Your task to perform on an android device: toggle pop-ups in chrome Image 0: 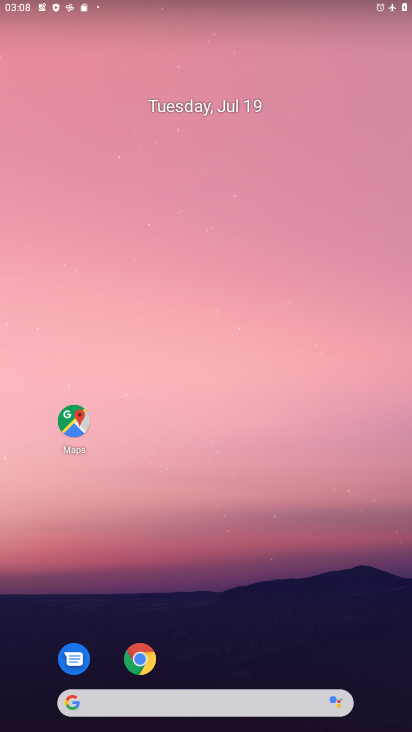
Step 0: press home button
Your task to perform on an android device: toggle pop-ups in chrome Image 1: 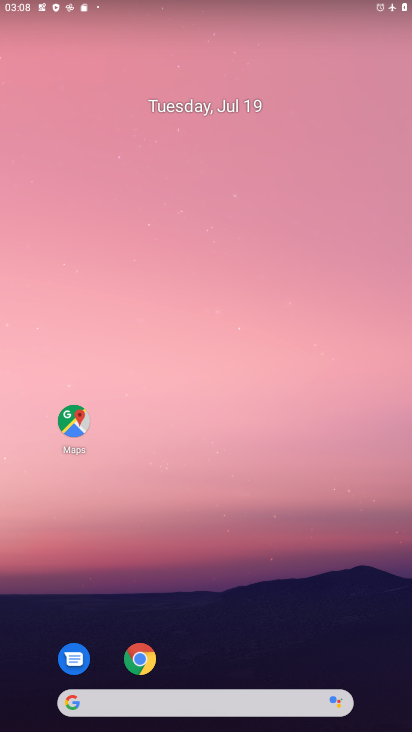
Step 1: drag from (304, 667) to (240, 7)
Your task to perform on an android device: toggle pop-ups in chrome Image 2: 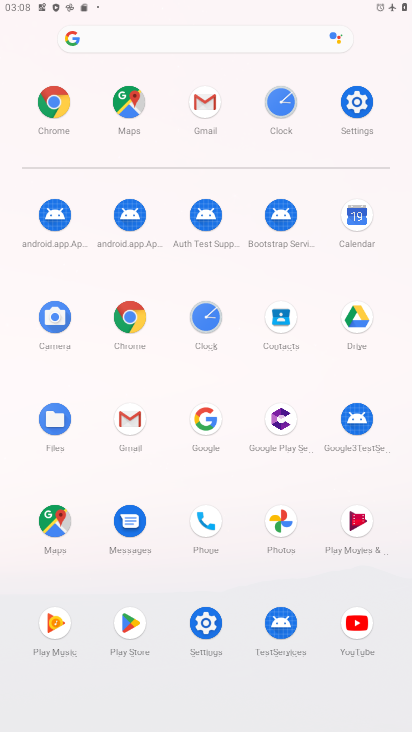
Step 2: click (138, 351)
Your task to perform on an android device: toggle pop-ups in chrome Image 3: 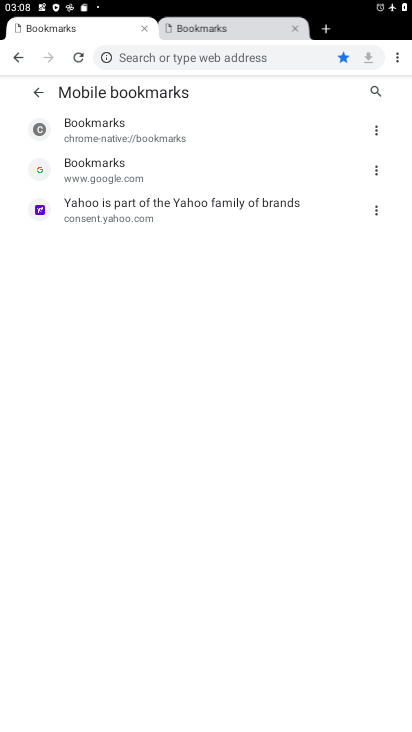
Step 3: drag from (397, 54) to (276, 287)
Your task to perform on an android device: toggle pop-ups in chrome Image 4: 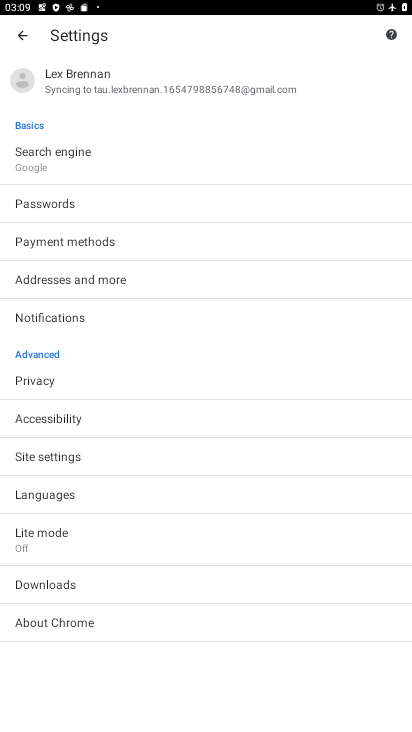
Step 4: click (26, 446)
Your task to perform on an android device: toggle pop-ups in chrome Image 5: 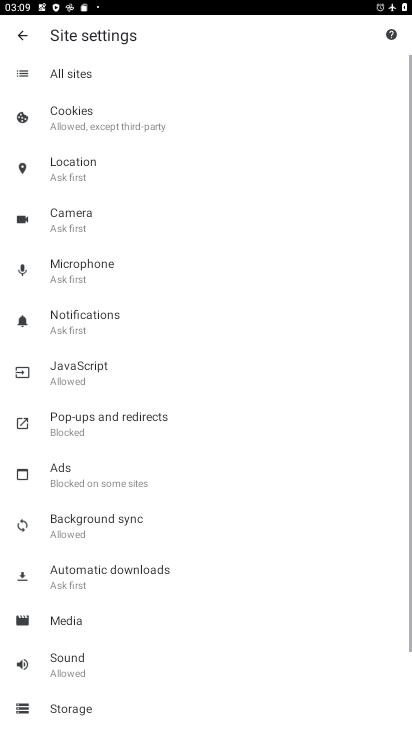
Step 5: click (29, 433)
Your task to perform on an android device: toggle pop-ups in chrome Image 6: 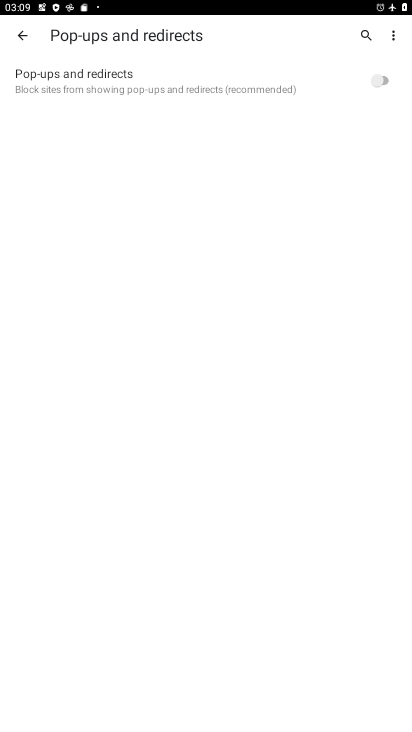
Step 6: click (346, 91)
Your task to perform on an android device: toggle pop-ups in chrome Image 7: 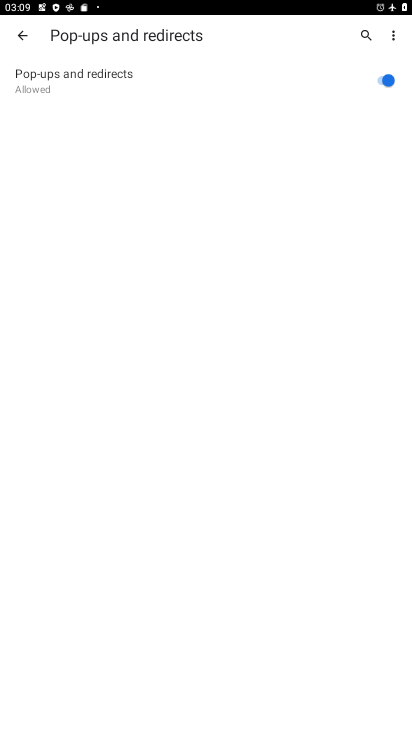
Step 7: click (328, 71)
Your task to perform on an android device: toggle pop-ups in chrome Image 8: 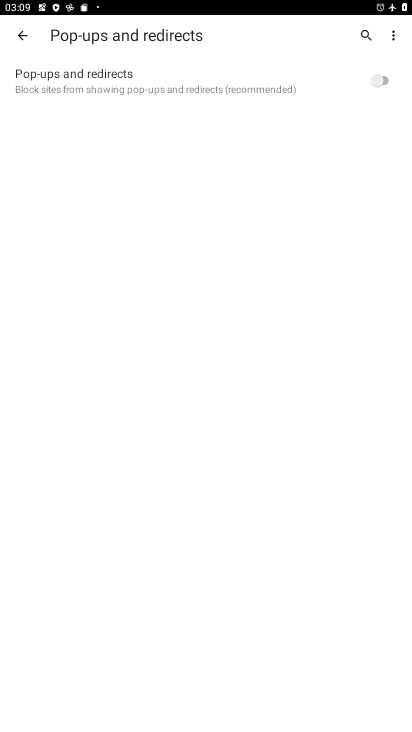
Step 8: task complete